Your task to perform on an android device: turn on data saver in the chrome app Image 0: 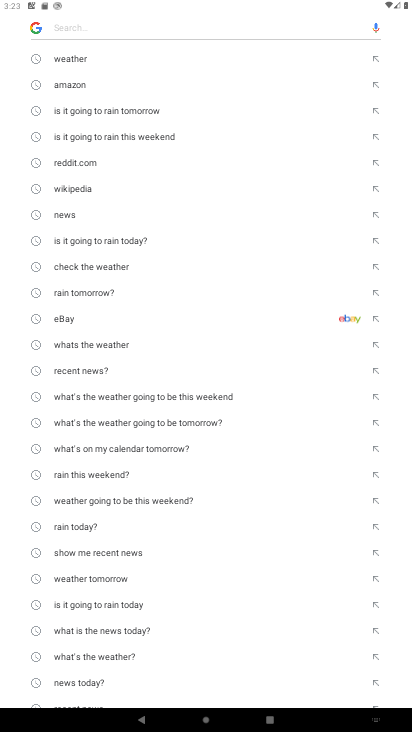
Step 0: press home button
Your task to perform on an android device: turn on data saver in the chrome app Image 1: 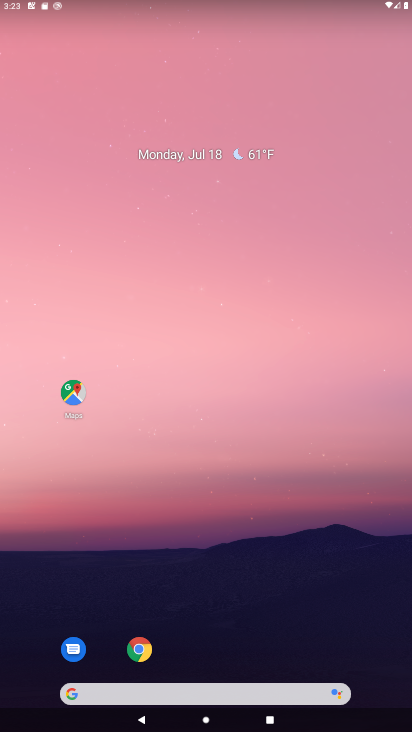
Step 1: click (141, 656)
Your task to perform on an android device: turn on data saver in the chrome app Image 2: 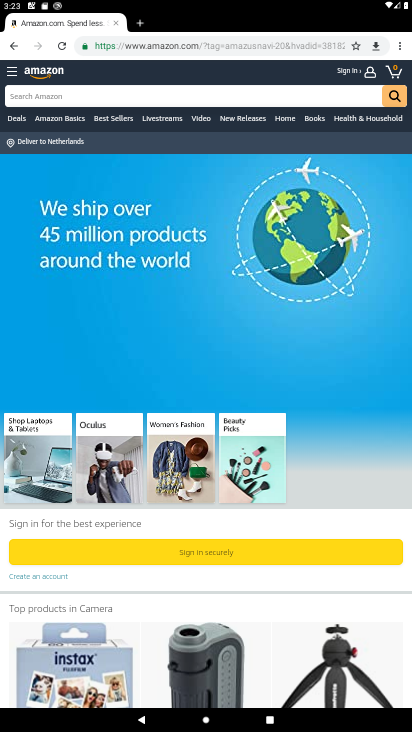
Step 2: click (399, 42)
Your task to perform on an android device: turn on data saver in the chrome app Image 3: 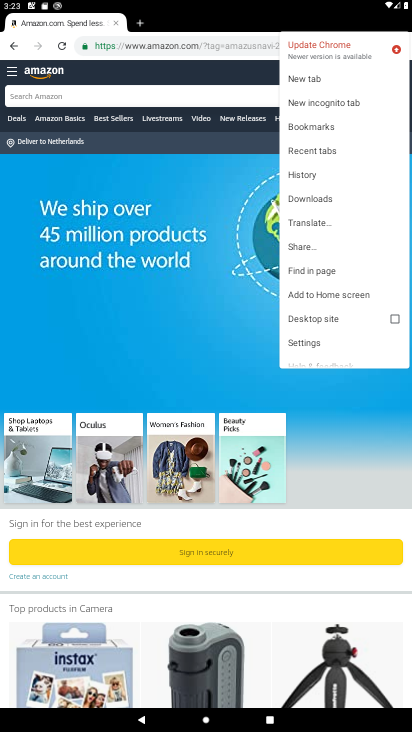
Step 3: click (298, 340)
Your task to perform on an android device: turn on data saver in the chrome app Image 4: 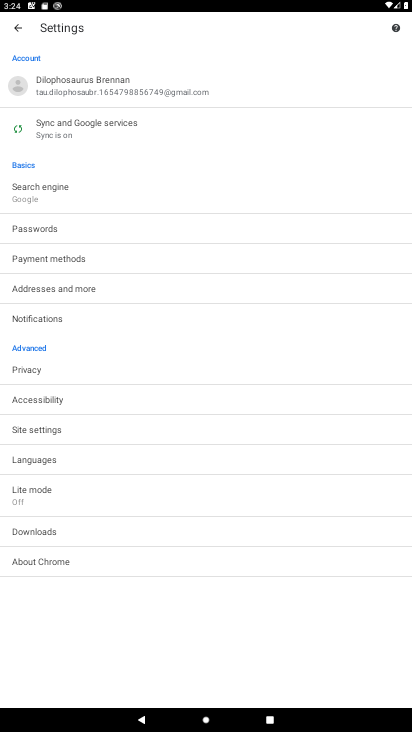
Step 4: click (105, 493)
Your task to perform on an android device: turn on data saver in the chrome app Image 5: 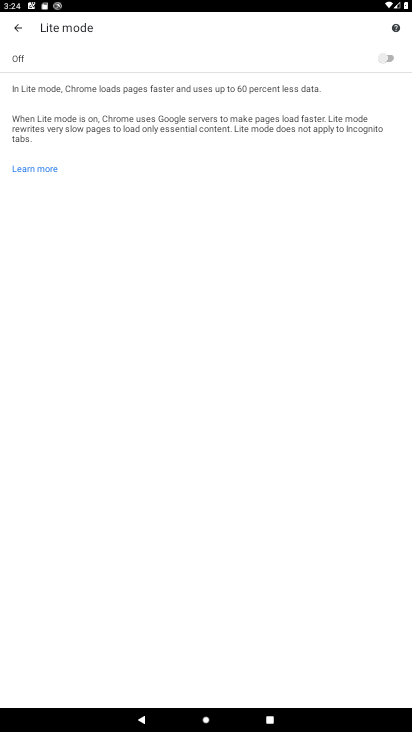
Step 5: click (392, 47)
Your task to perform on an android device: turn on data saver in the chrome app Image 6: 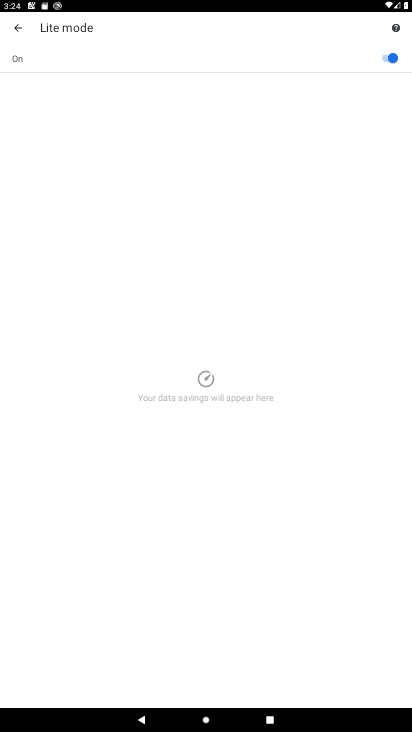
Step 6: task complete